Your task to perform on an android device: move a message to another label in the gmail app Image 0: 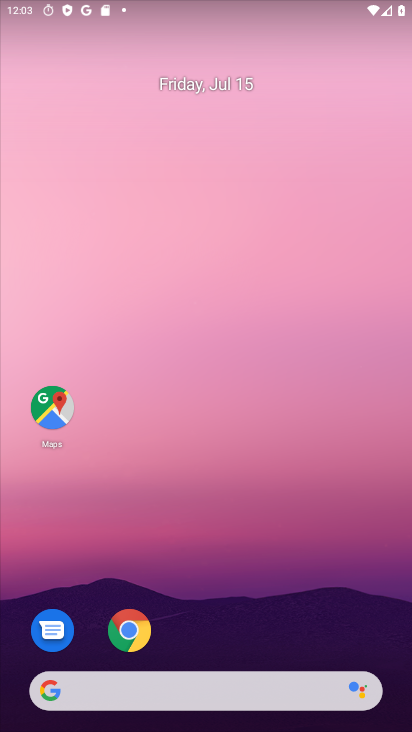
Step 0: drag from (188, 647) to (246, 314)
Your task to perform on an android device: move a message to another label in the gmail app Image 1: 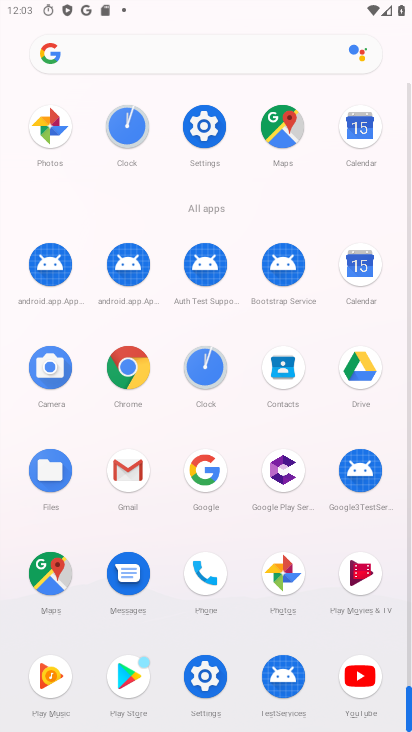
Step 1: click (112, 473)
Your task to perform on an android device: move a message to another label in the gmail app Image 2: 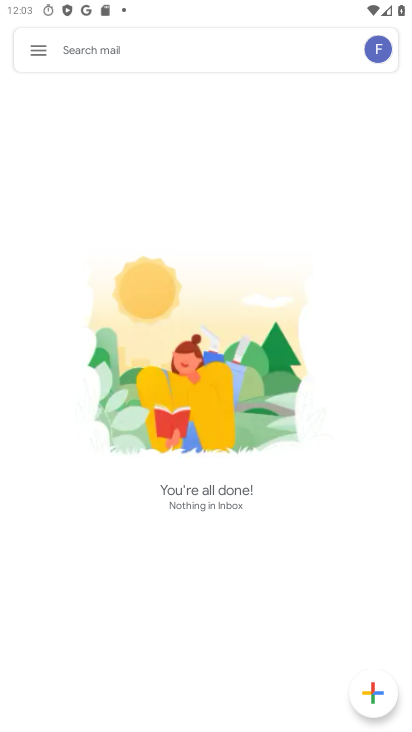
Step 2: drag from (212, 487) to (194, 248)
Your task to perform on an android device: move a message to another label in the gmail app Image 3: 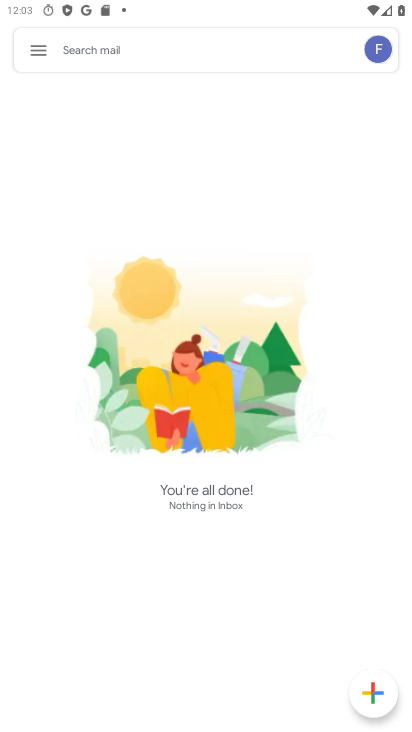
Step 3: click (46, 57)
Your task to perform on an android device: move a message to another label in the gmail app Image 4: 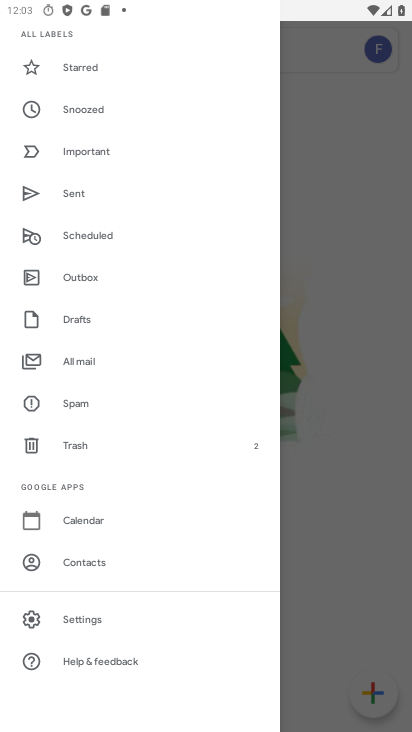
Step 4: drag from (109, 572) to (148, 248)
Your task to perform on an android device: move a message to another label in the gmail app Image 5: 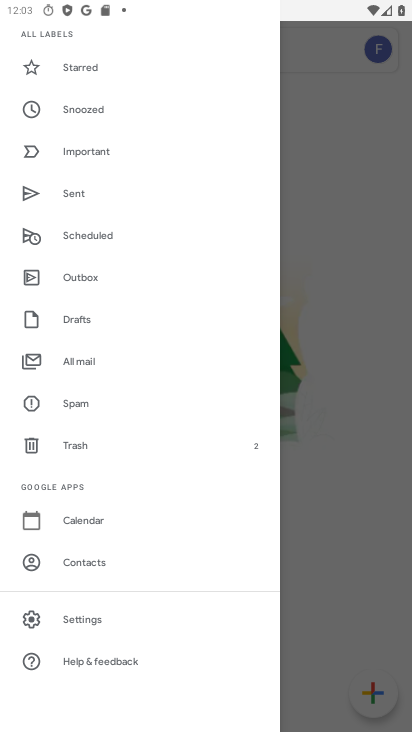
Step 5: click (349, 419)
Your task to perform on an android device: move a message to another label in the gmail app Image 6: 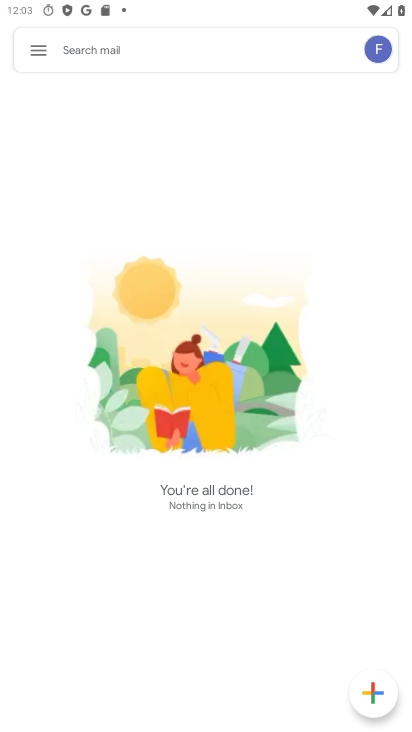
Step 6: task complete